Your task to perform on an android device: turn off improve location accuracy Image 0: 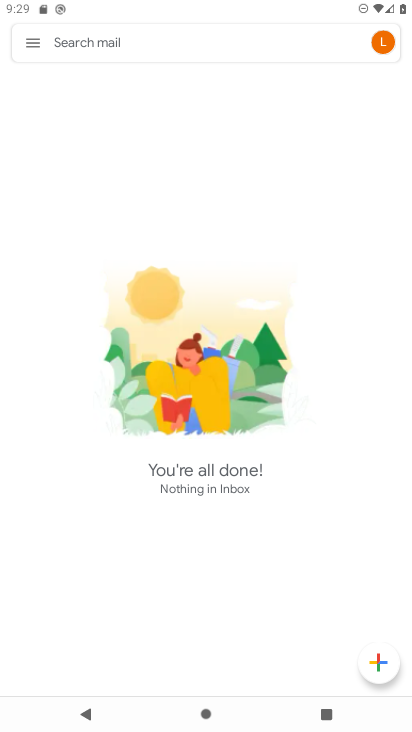
Step 0: press home button
Your task to perform on an android device: turn off improve location accuracy Image 1: 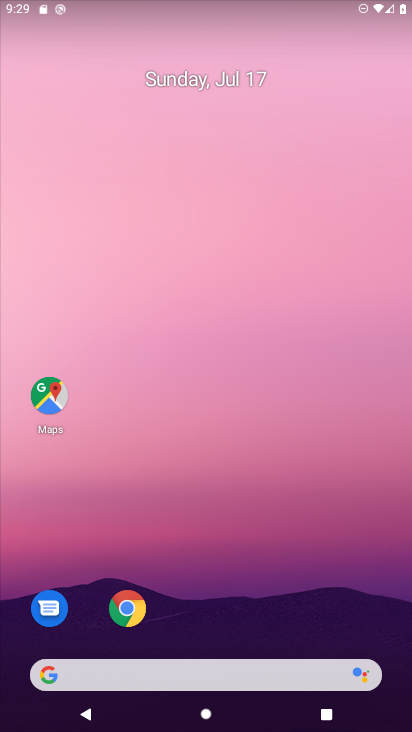
Step 1: drag from (192, 666) to (289, 201)
Your task to perform on an android device: turn off improve location accuracy Image 2: 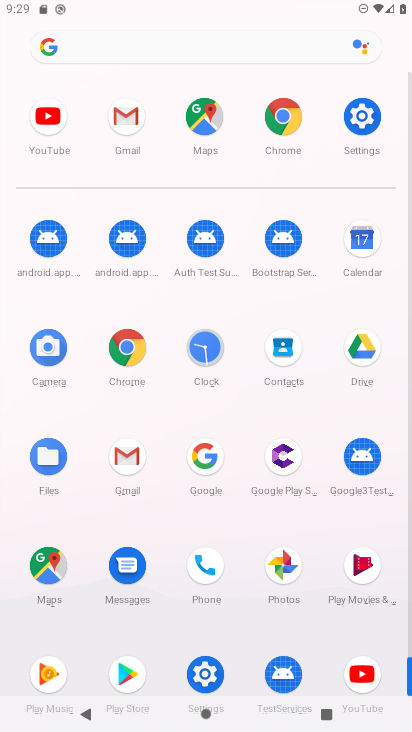
Step 2: click (362, 115)
Your task to perform on an android device: turn off improve location accuracy Image 3: 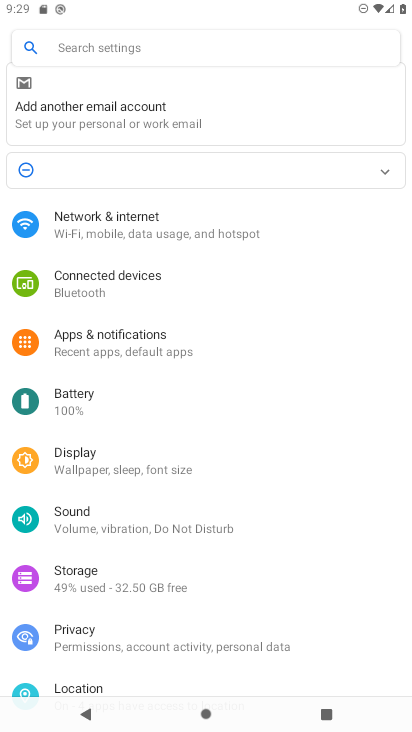
Step 3: drag from (124, 574) to (175, 474)
Your task to perform on an android device: turn off improve location accuracy Image 4: 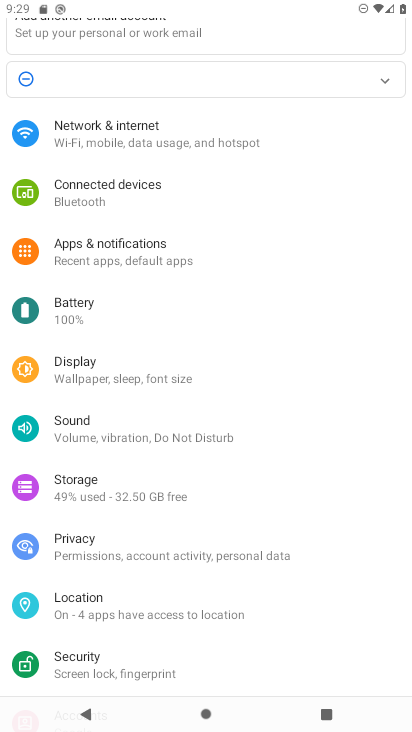
Step 4: click (137, 605)
Your task to perform on an android device: turn off improve location accuracy Image 5: 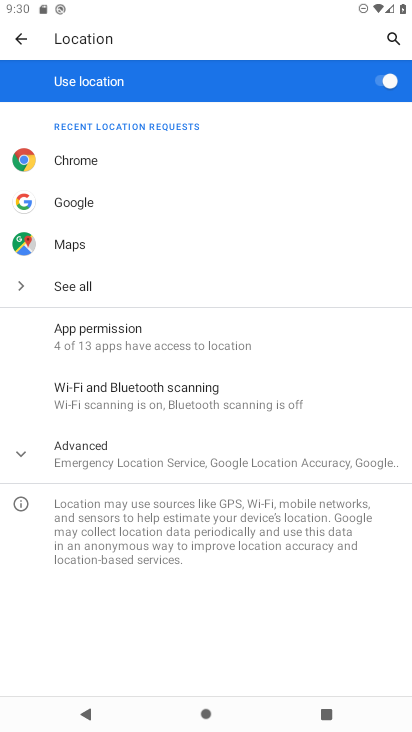
Step 5: click (141, 455)
Your task to perform on an android device: turn off improve location accuracy Image 6: 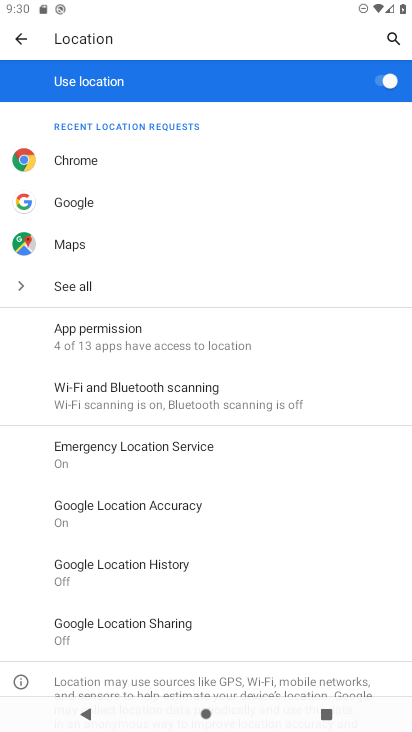
Step 6: drag from (145, 581) to (198, 492)
Your task to perform on an android device: turn off improve location accuracy Image 7: 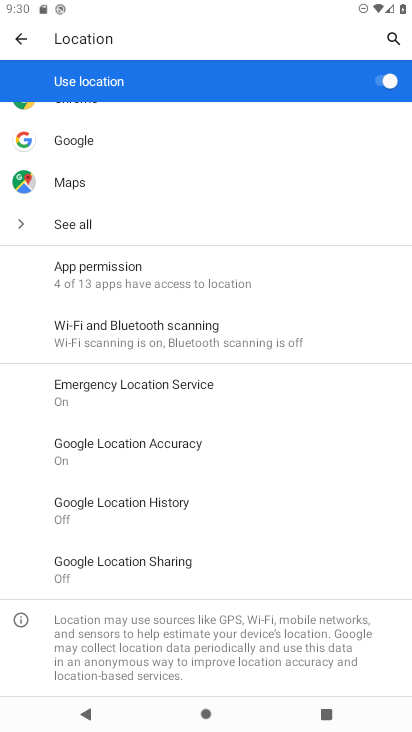
Step 7: click (198, 441)
Your task to perform on an android device: turn off improve location accuracy Image 8: 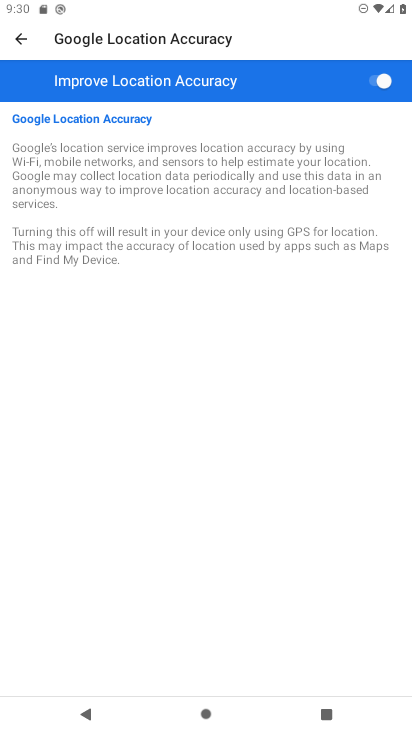
Step 8: click (376, 80)
Your task to perform on an android device: turn off improve location accuracy Image 9: 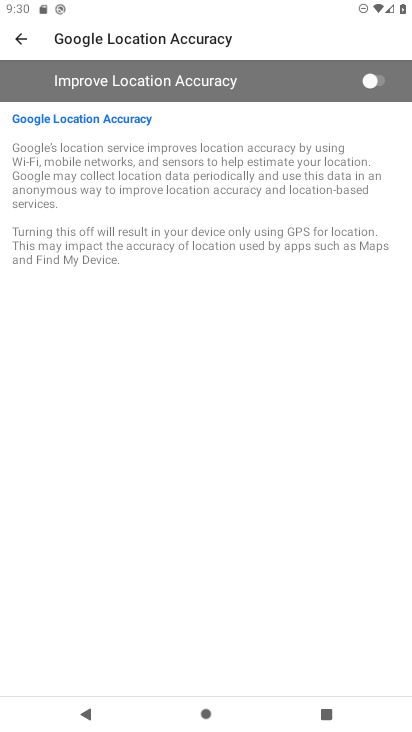
Step 9: task complete